Your task to perform on an android device: Open Google Chrome and open the bookmarks view Image 0: 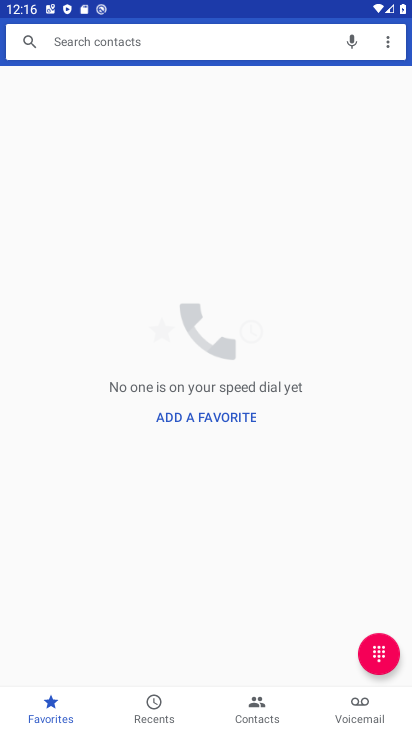
Step 0: press home button
Your task to perform on an android device: Open Google Chrome and open the bookmarks view Image 1: 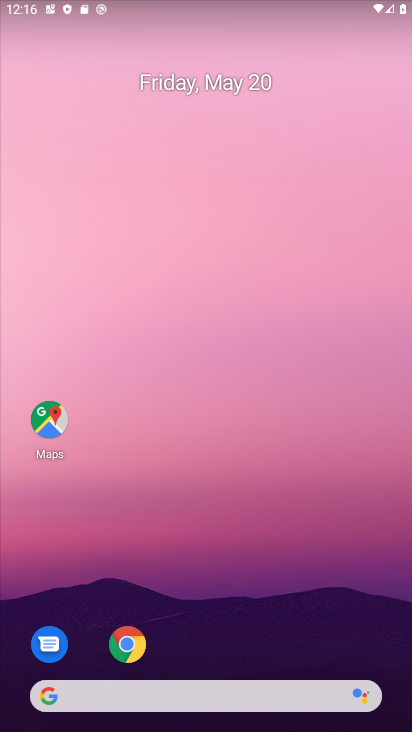
Step 1: click (131, 643)
Your task to perform on an android device: Open Google Chrome and open the bookmarks view Image 2: 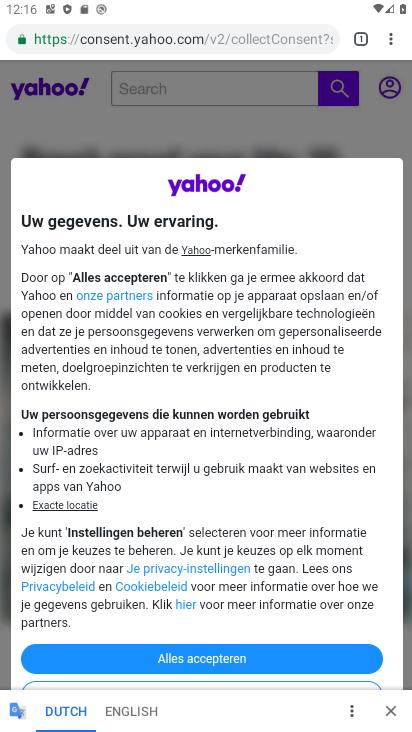
Step 2: click (392, 43)
Your task to perform on an android device: Open Google Chrome and open the bookmarks view Image 3: 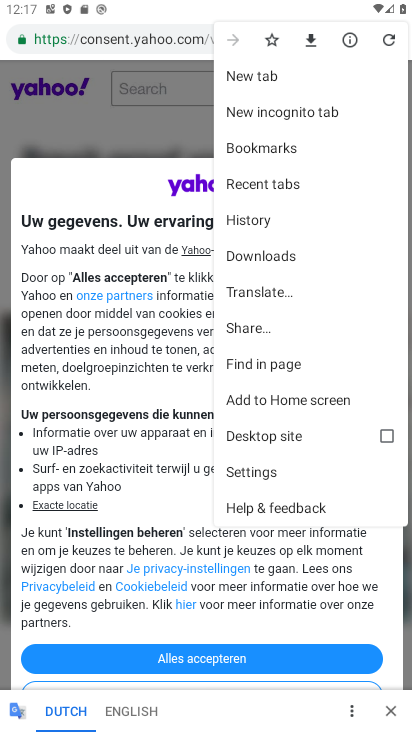
Step 3: click (258, 154)
Your task to perform on an android device: Open Google Chrome and open the bookmarks view Image 4: 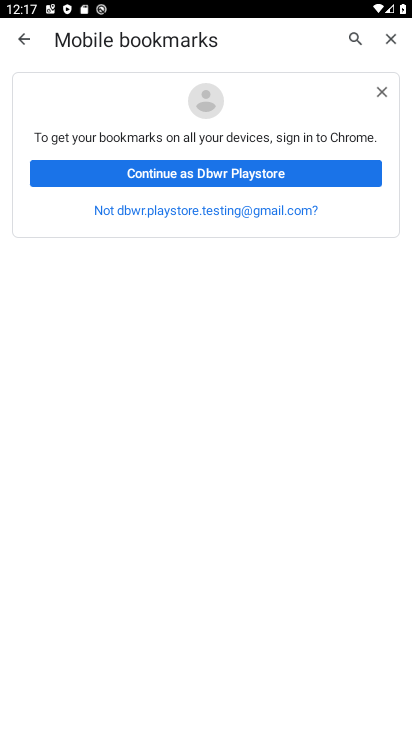
Step 4: click (186, 173)
Your task to perform on an android device: Open Google Chrome and open the bookmarks view Image 5: 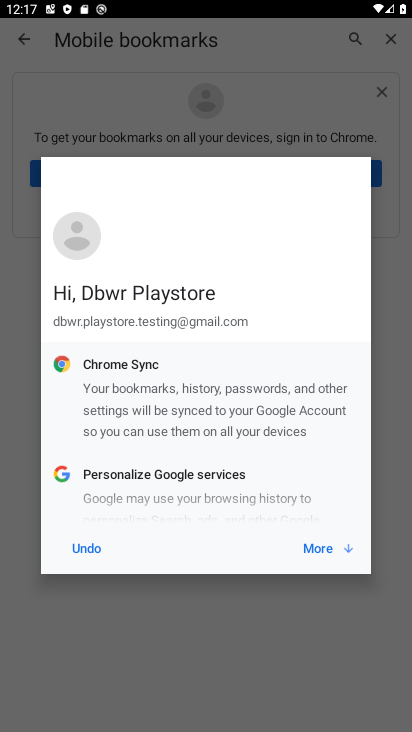
Step 5: click (322, 553)
Your task to perform on an android device: Open Google Chrome and open the bookmarks view Image 6: 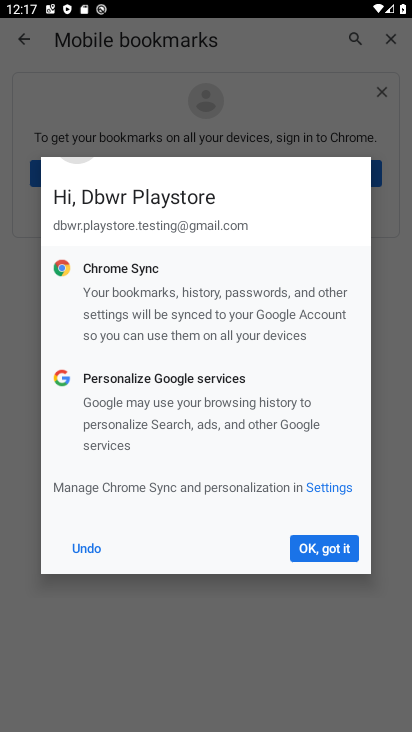
Step 6: click (322, 553)
Your task to perform on an android device: Open Google Chrome and open the bookmarks view Image 7: 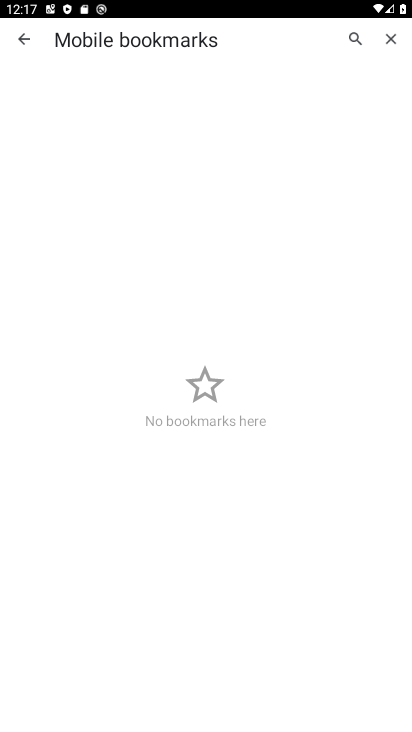
Step 7: task complete